Your task to perform on an android device: turn on sleep mode Image 0: 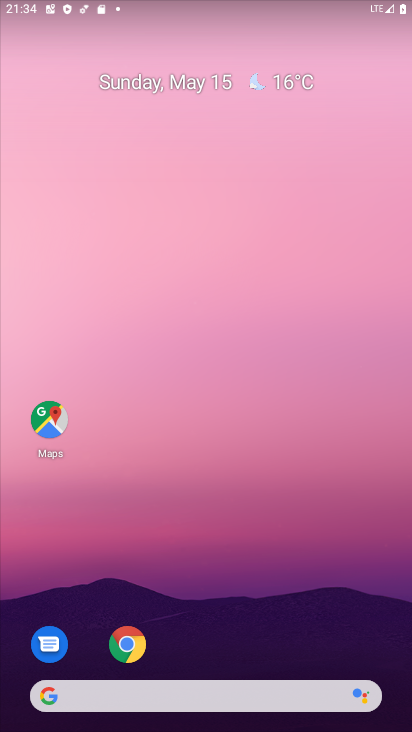
Step 0: drag from (259, 633) to (337, 31)
Your task to perform on an android device: turn on sleep mode Image 1: 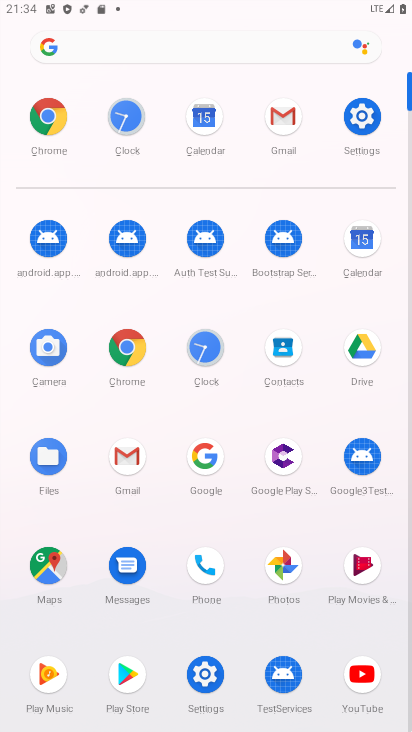
Step 1: click (360, 119)
Your task to perform on an android device: turn on sleep mode Image 2: 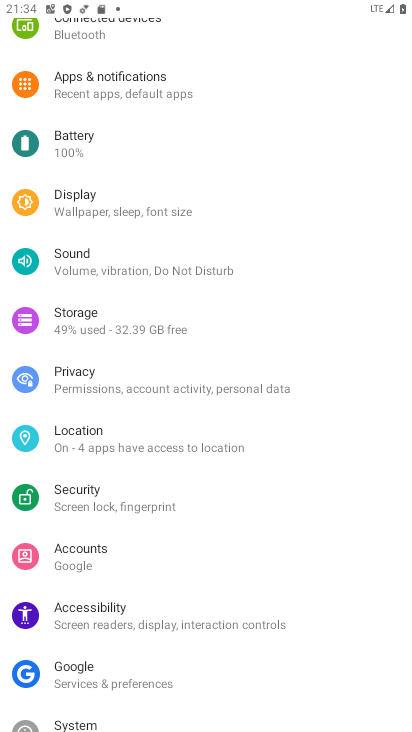
Step 2: drag from (249, 147) to (205, 650)
Your task to perform on an android device: turn on sleep mode Image 3: 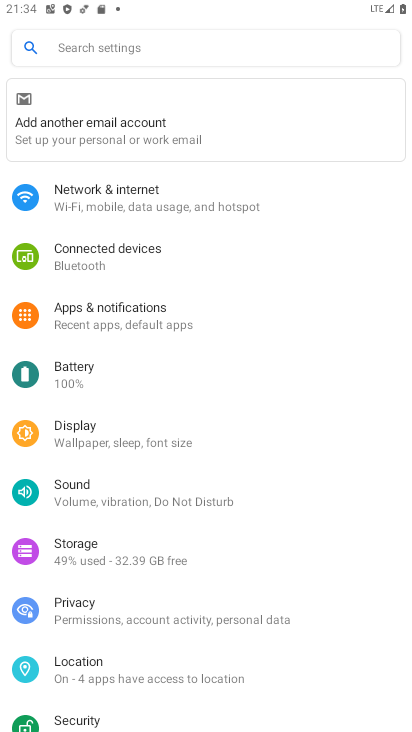
Step 3: click (118, 50)
Your task to perform on an android device: turn on sleep mode Image 4: 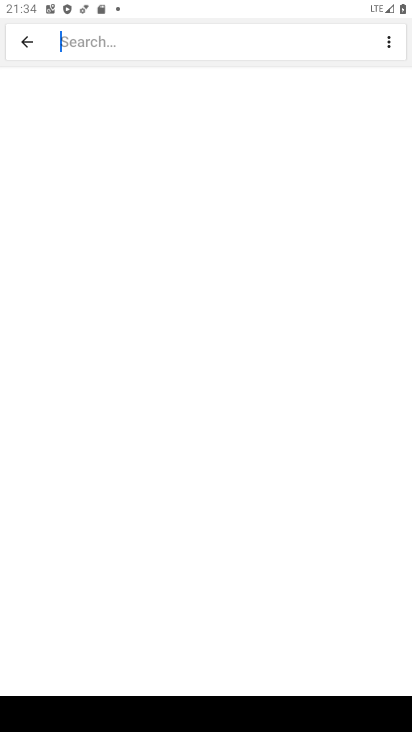
Step 4: type "sleep mode"
Your task to perform on an android device: turn on sleep mode Image 5: 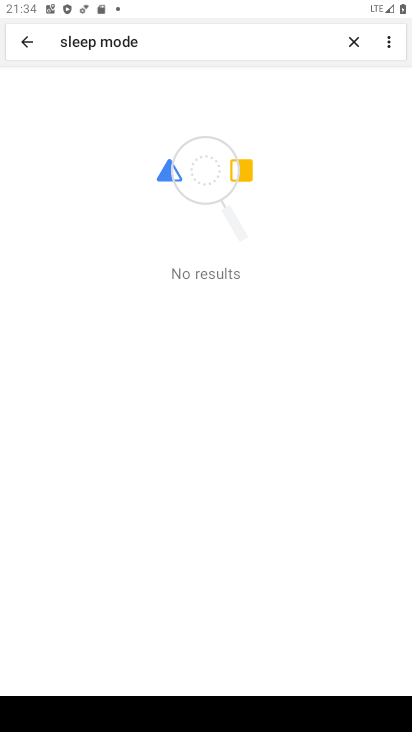
Step 5: task complete